Your task to perform on an android device: move a message to another label in the gmail app Image 0: 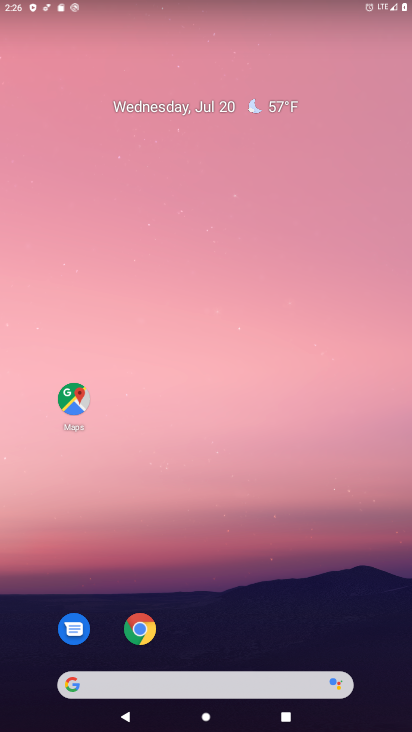
Step 0: drag from (400, 678) to (364, 117)
Your task to perform on an android device: move a message to another label in the gmail app Image 1: 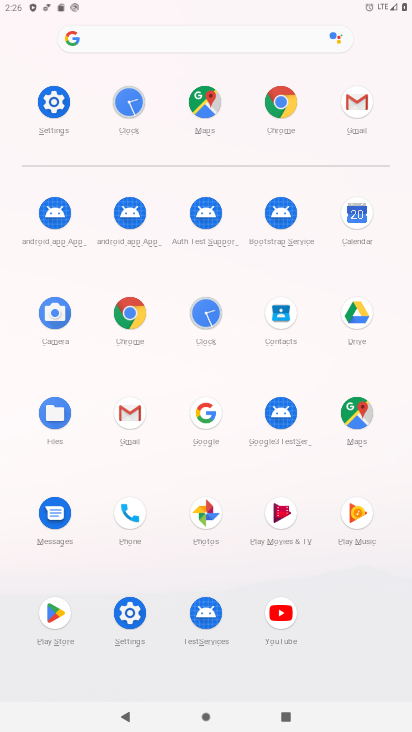
Step 1: click (130, 416)
Your task to perform on an android device: move a message to another label in the gmail app Image 2: 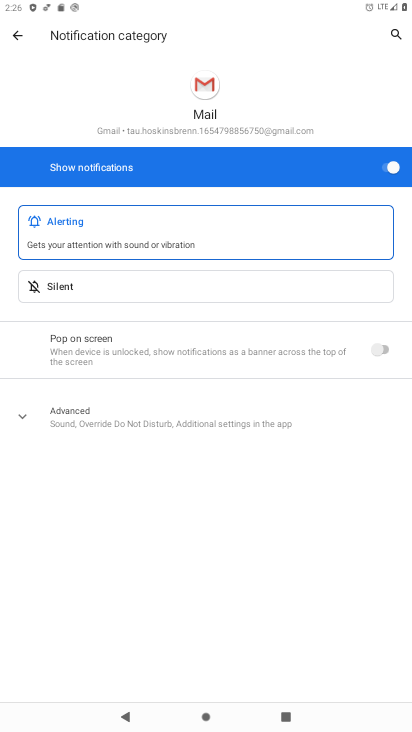
Step 2: press back button
Your task to perform on an android device: move a message to another label in the gmail app Image 3: 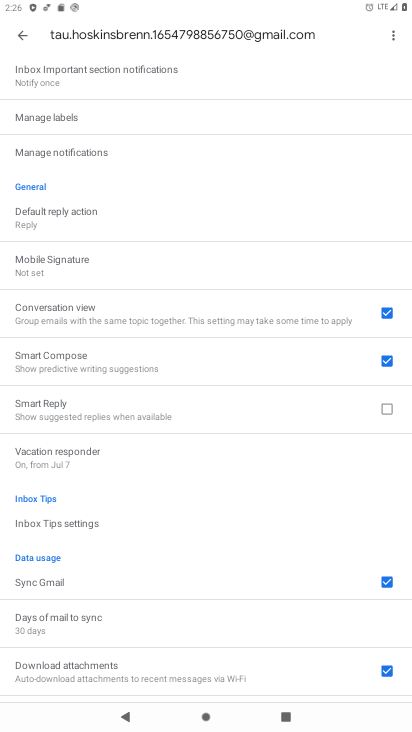
Step 3: press back button
Your task to perform on an android device: move a message to another label in the gmail app Image 4: 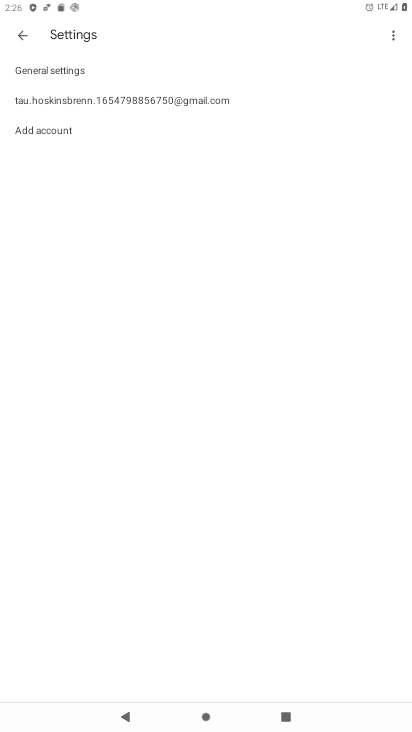
Step 4: press back button
Your task to perform on an android device: move a message to another label in the gmail app Image 5: 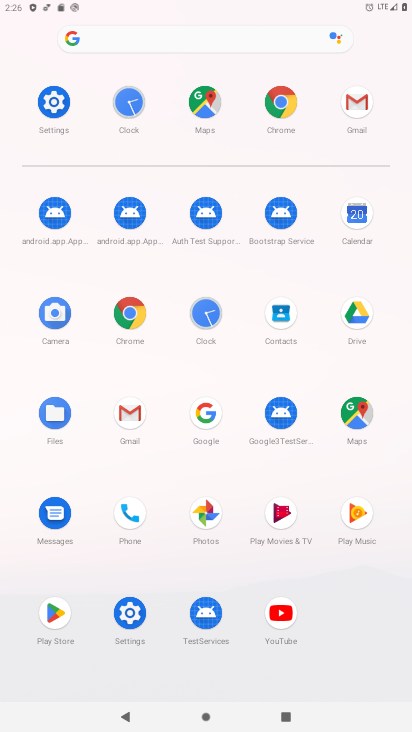
Step 5: click (129, 415)
Your task to perform on an android device: move a message to another label in the gmail app Image 6: 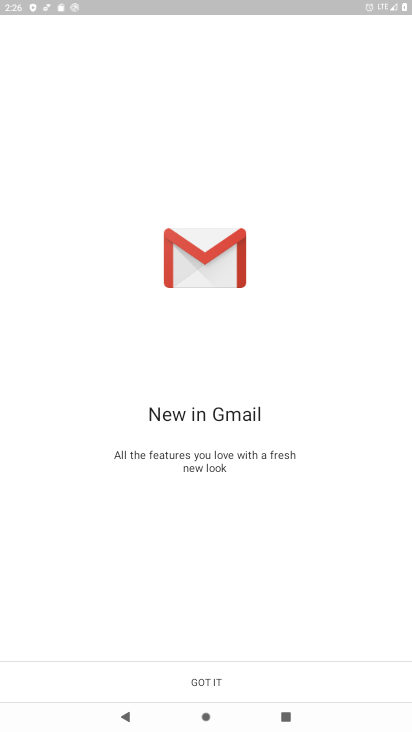
Step 6: click (208, 684)
Your task to perform on an android device: move a message to another label in the gmail app Image 7: 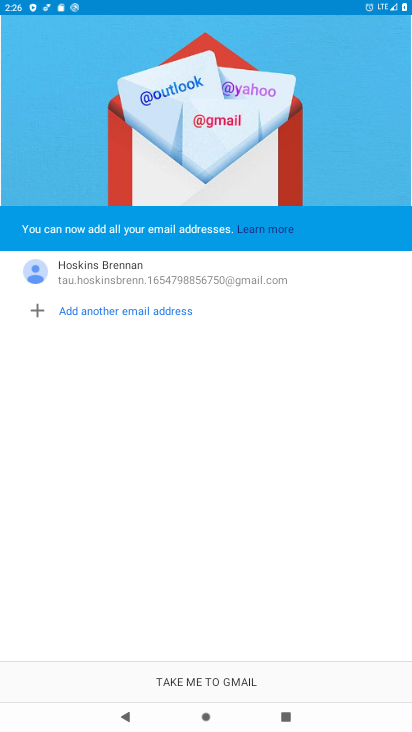
Step 7: click (209, 680)
Your task to perform on an android device: move a message to another label in the gmail app Image 8: 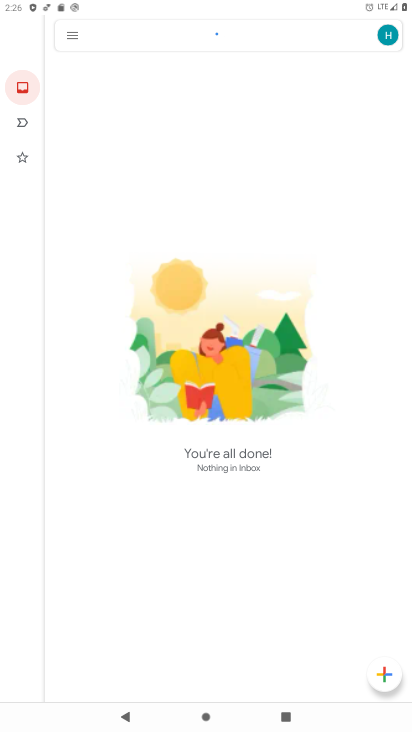
Step 8: click (69, 39)
Your task to perform on an android device: move a message to another label in the gmail app Image 9: 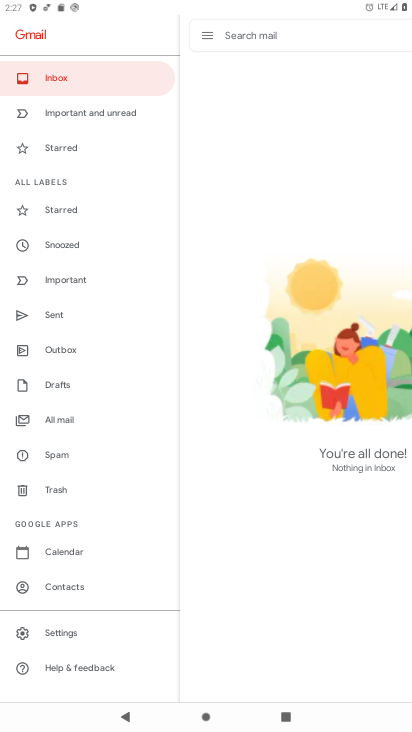
Step 9: click (65, 630)
Your task to perform on an android device: move a message to another label in the gmail app Image 10: 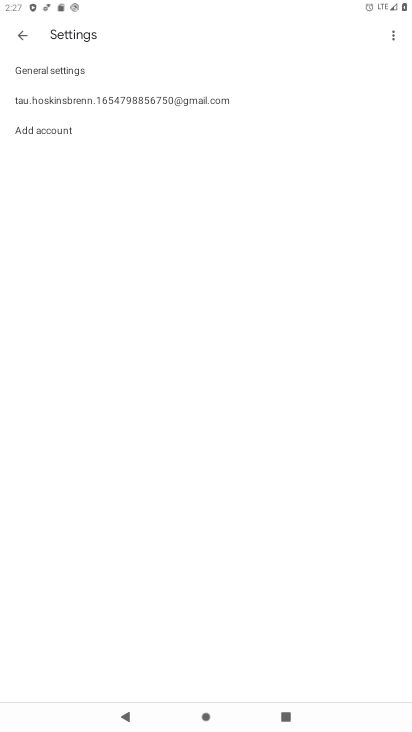
Step 10: click (93, 98)
Your task to perform on an android device: move a message to another label in the gmail app Image 11: 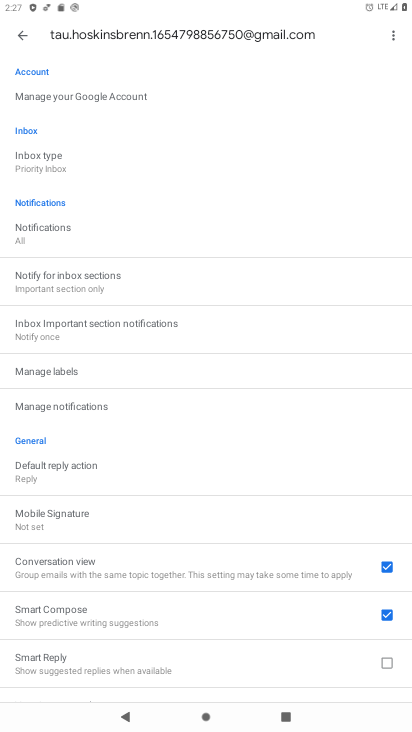
Step 11: press back button
Your task to perform on an android device: move a message to another label in the gmail app Image 12: 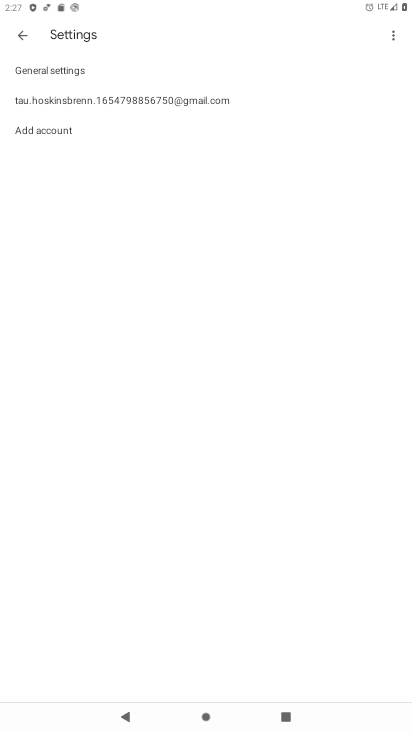
Step 12: press back button
Your task to perform on an android device: move a message to another label in the gmail app Image 13: 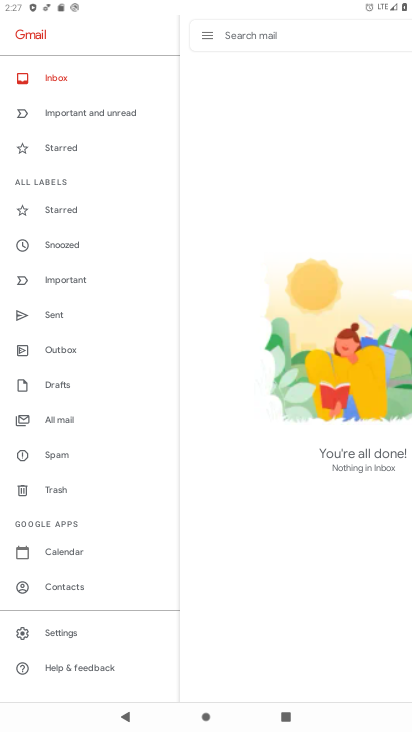
Step 13: click (61, 415)
Your task to perform on an android device: move a message to another label in the gmail app Image 14: 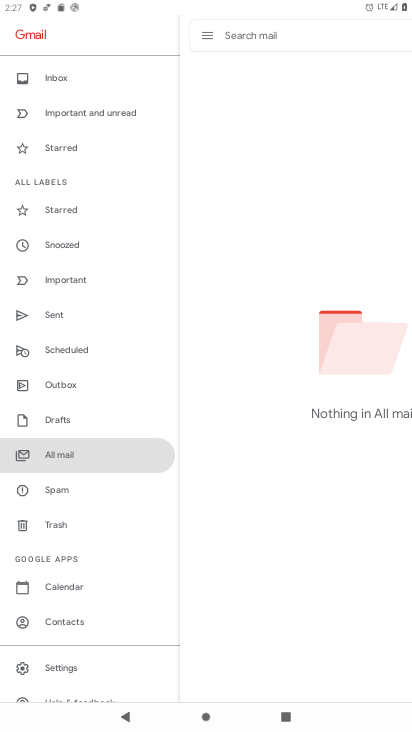
Step 14: task complete